Your task to perform on an android device: change your default location settings in chrome Image 0: 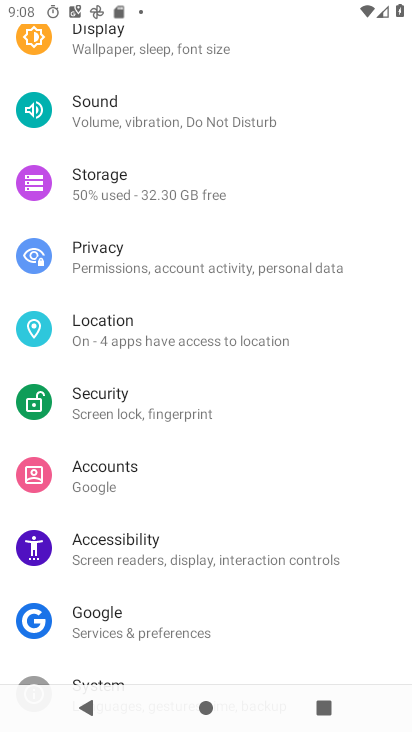
Step 0: press home button
Your task to perform on an android device: change your default location settings in chrome Image 1: 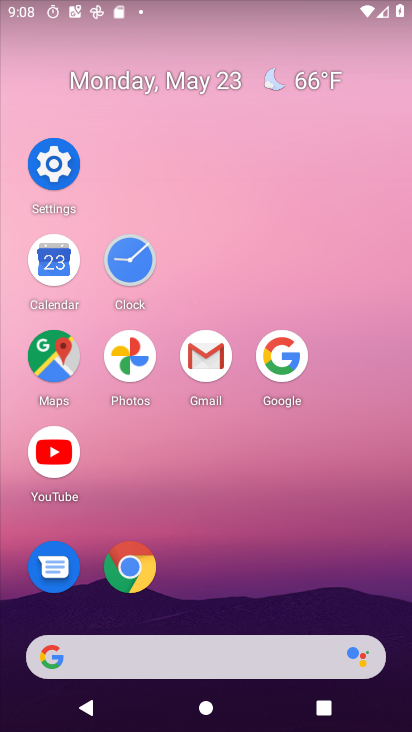
Step 1: click (132, 552)
Your task to perform on an android device: change your default location settings in chrome Image 2: 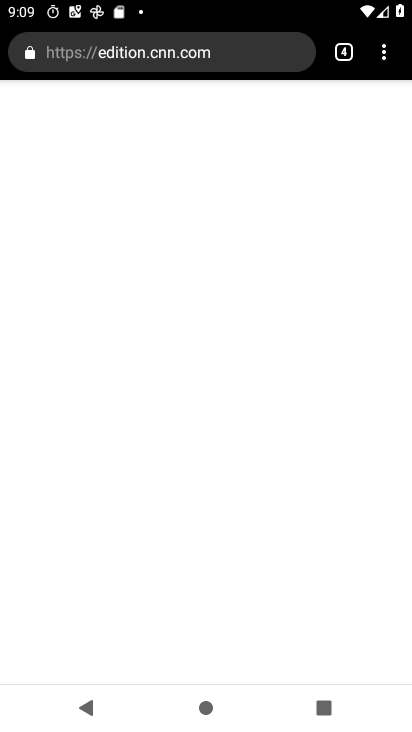
Step 2: click (368, 50)
Your task to perform on an android device: change your default location settings in chrome Image 3: 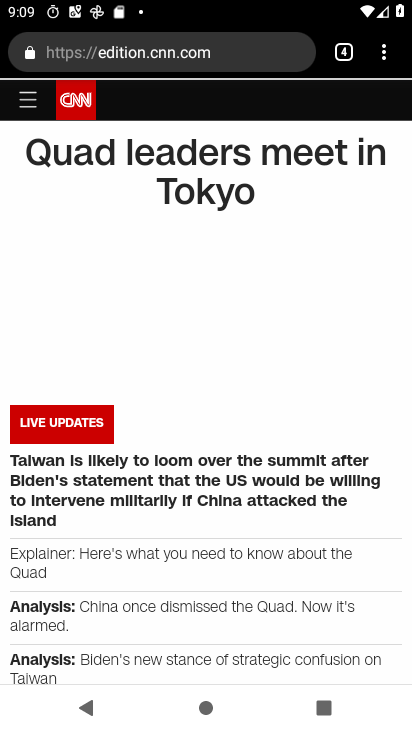
Step 3: click (365, 55)
Your task to perform on an android device: change your default location settings in chrome Image 4: 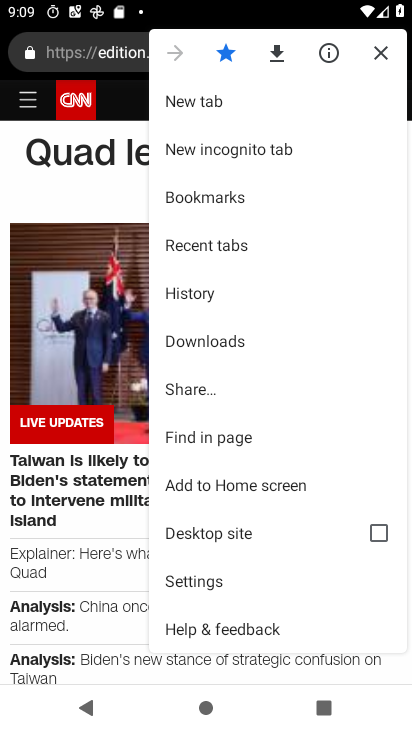
Step 4: drag from (270, 591) to (282, 190)
Your task to perform on an android device: change your default location settings in chrome Image 5: 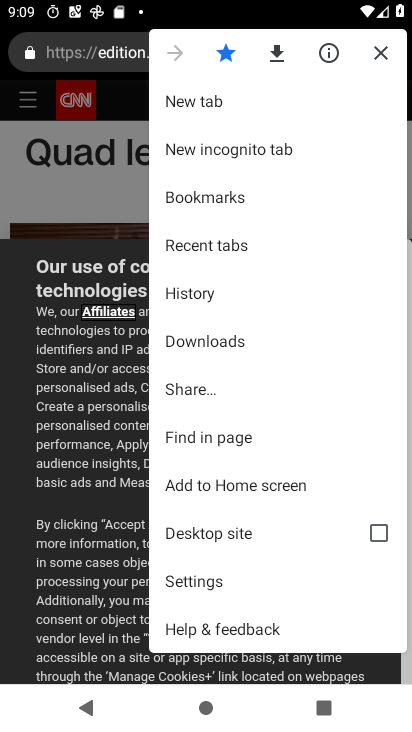
Step 5: click (241, 563)
Your task to perform on an android device: change your default location settings in chrome Image 6: 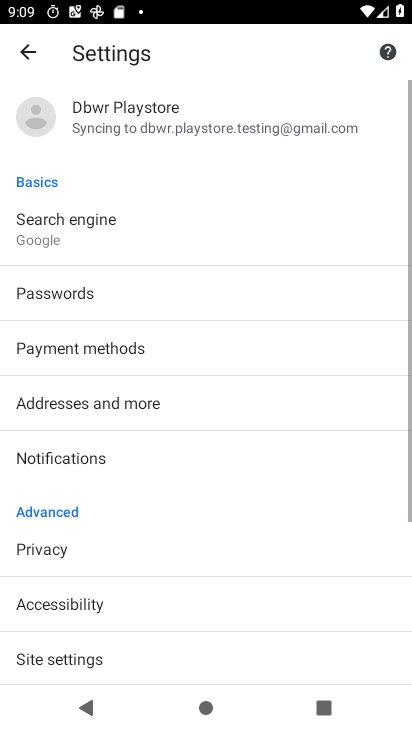
Step 6: drag from (241, 563) to (224, 197)
Your task to perform on an android device: change your default location settings in chrome Image 7: 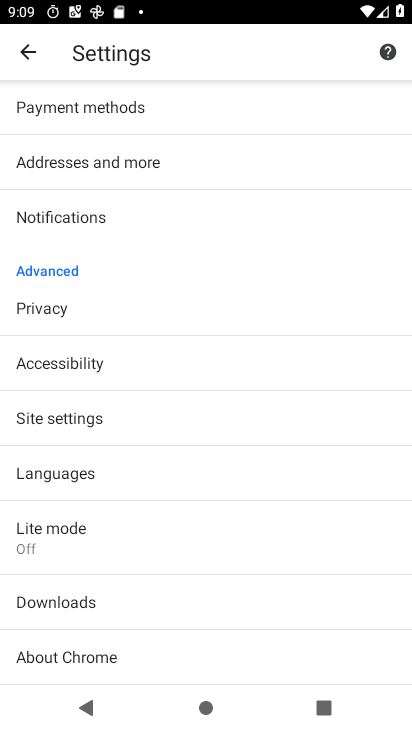
Step 7: drag from (160, 566) to (174, 256)
Your task to perform on an android device: change your default location settings in chrome Image 8: 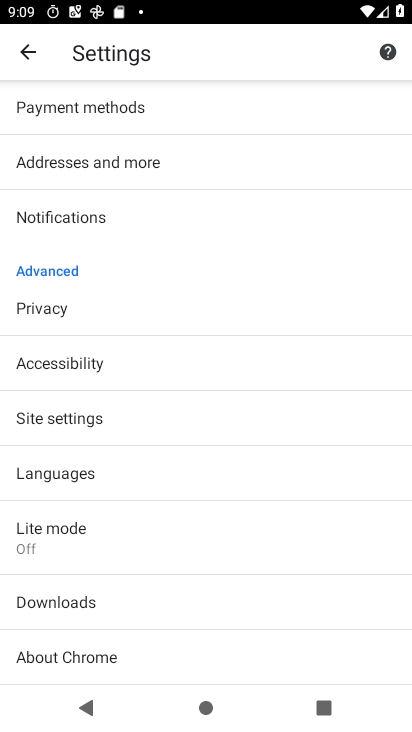
Step 8: click (155, 413)
Your task to perform on an android device: change your default location settings in chrome Image 9: 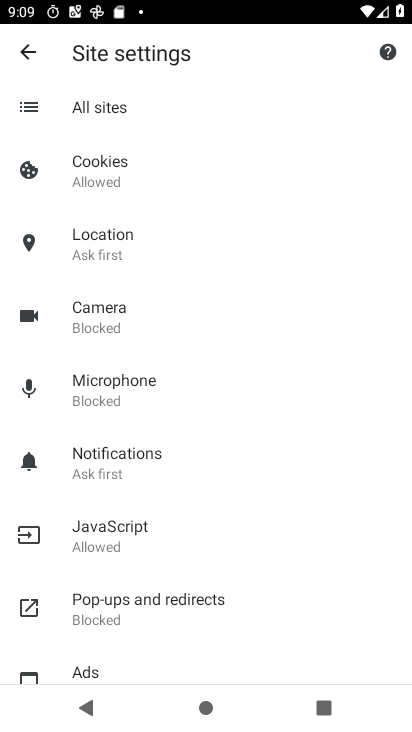
Step 9: click (114, 248)
Your task to perform on an android device: change your default location settings in chrome Image 10: 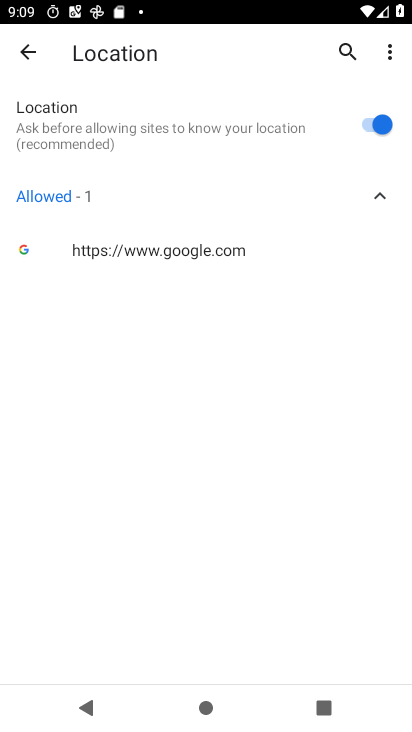
Step 10: click (378, 128)
Your task to perform on an android device: change your default location settings in chrome Image 11: 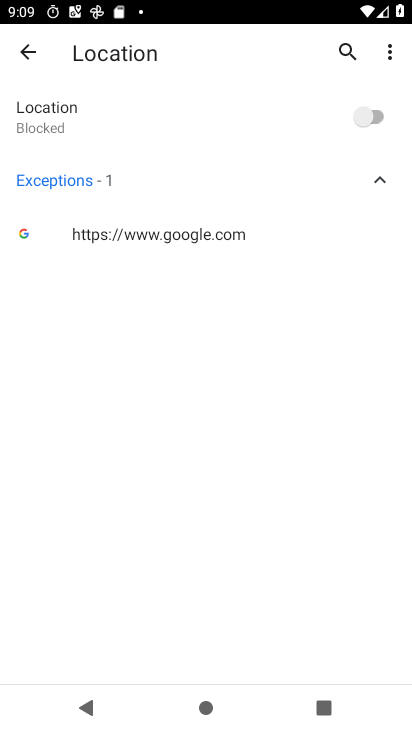
Step 11: task complete